Your task to perform on an android device: Add "macbook" to the cart on walmart, then select checkout. Image 0: 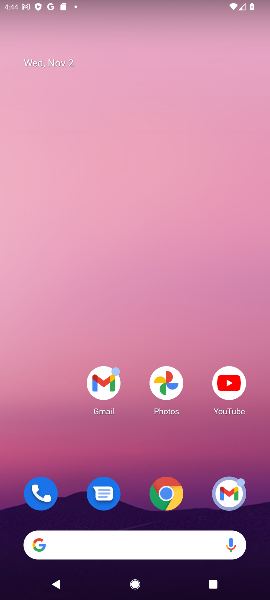
Step 0: drag from (90, 479) to (116, 145)
Your task to perform on an android device: Add "macbook" to the cart on walmart, then select checkout. Image 1: 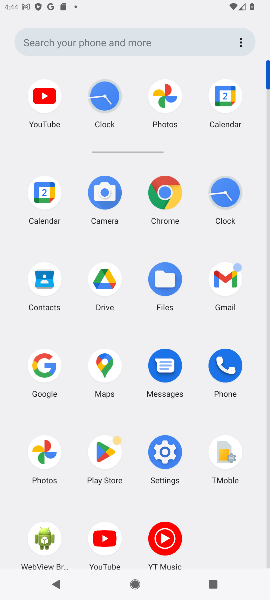
Step 1: click (39, 367)
Your task to perform on an android device: Add "macbook" to the cart on walmart, then select checkout. Image 2: 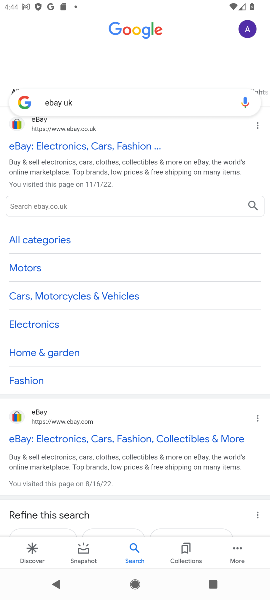
Step 2: click (88, 97)
Your task to perform on an android device: Add "macbook" to the cart on walmart, then select checkout. Image 3: 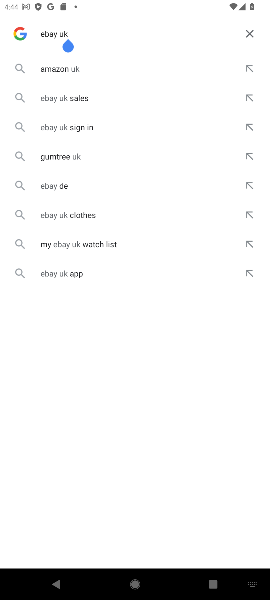
Step 3: click (248, 29)
Your task to perform on an android device: Add "macbook" to the cart on walmart, then select checkout. Image 4: 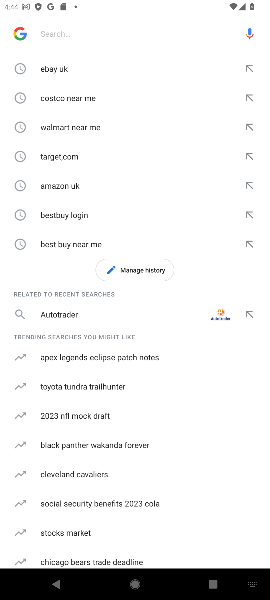
Step 4: click (55, 32)
Your task to perform on an android device: Add "macbook" to the cart on walmart, then select checkout. Image 5: 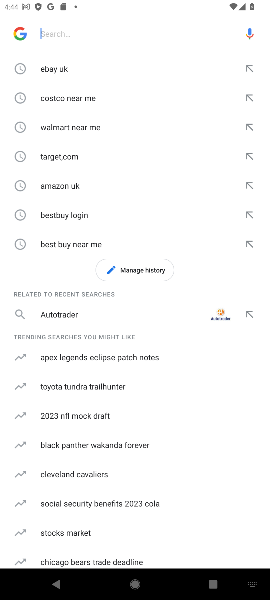
Step 5: type "walmart "
Your task to perform on an android device: Add "macbook" to the cart on walmart, then select checkout. Image 6: 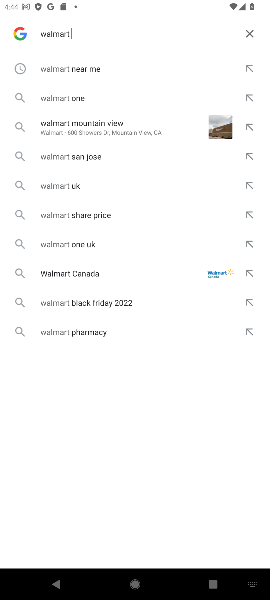
Step 6: click (53, 73)
Your task to perform on an android device: Add "macbook" to the cart on walmart, then select checkout. Image 7: 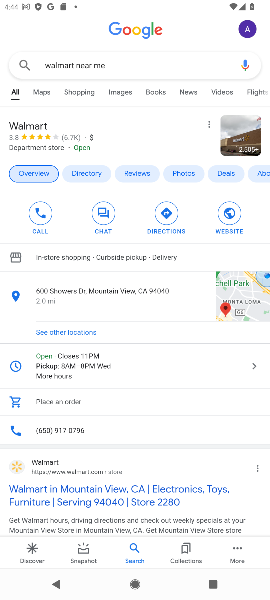
Step 7: click (14, 468)
Your task to perform on an android device: Add "macbook" to the cart on walmart, then select checkout. Image 8: 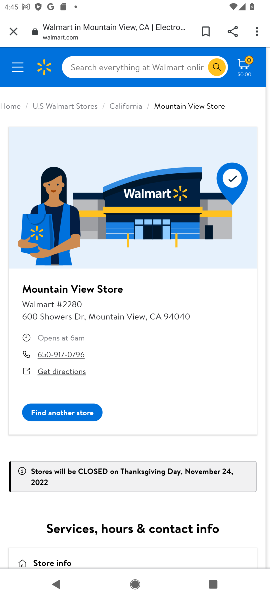
Step 8: click (148, 65)
Your task to perform on an android device: Add "macbook" to the cart on walmart, then select checkout. Image 9: 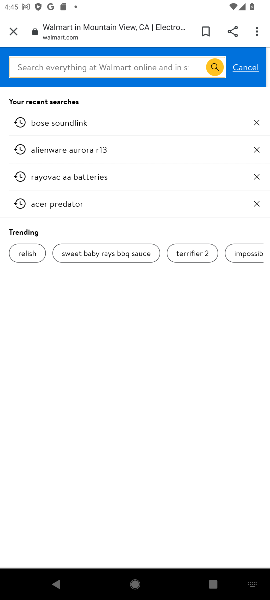
Step 9: click (91, 60)
Your task to perform on an android device: Add "macbook" to the cart on walmart, then select checkout. Image 10: 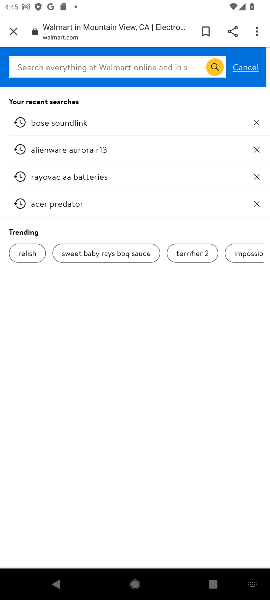
Step 10: type "macbook "
Your task to perform on an android device: Add "macbook" to the cart on walmart, then select checkout. Image 11: 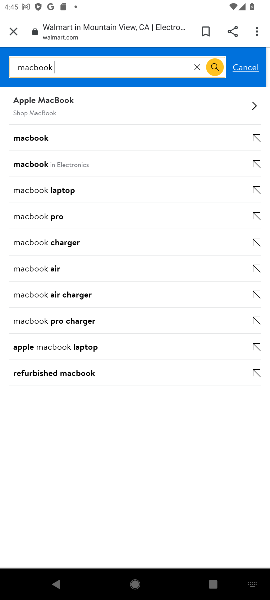
Step 11: click (31, 144)
Your task to perform on an android device: Add "macbook" to the cart on walmart, then select checkout. Image 12: 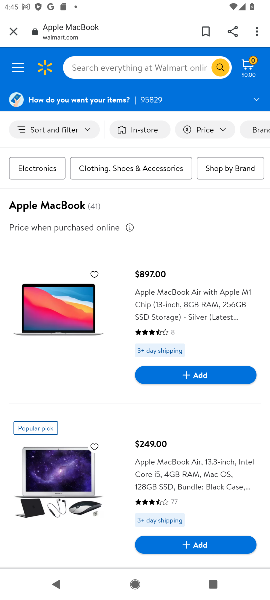
Step 12: click (199, 377)
Your task to perform on an android device: Add "macbook" to the cart on walmart, then select checkout. Image 13: 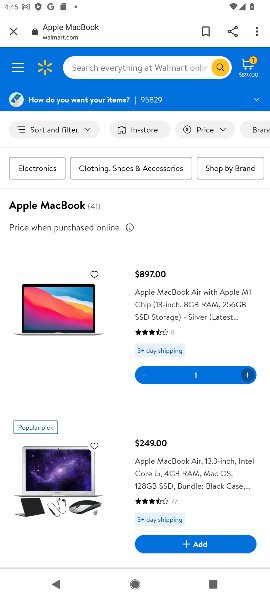
Step 13: task complete